Your task to perform on an android device: Open Yahoo.com Image 0: 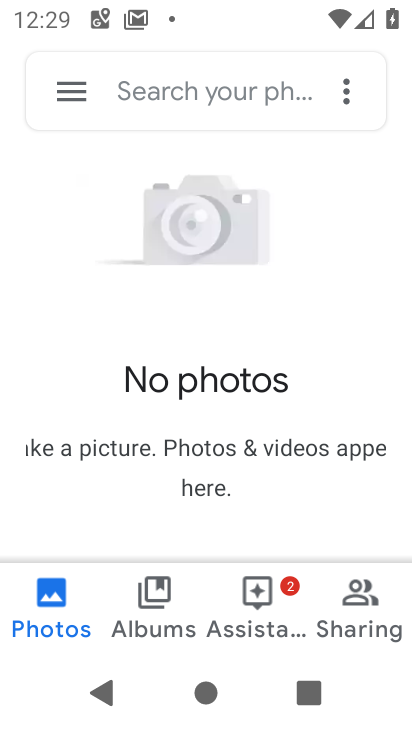
Step 0: press home button
Your task to perform on an android device: Open Yahoo.com Image 1: 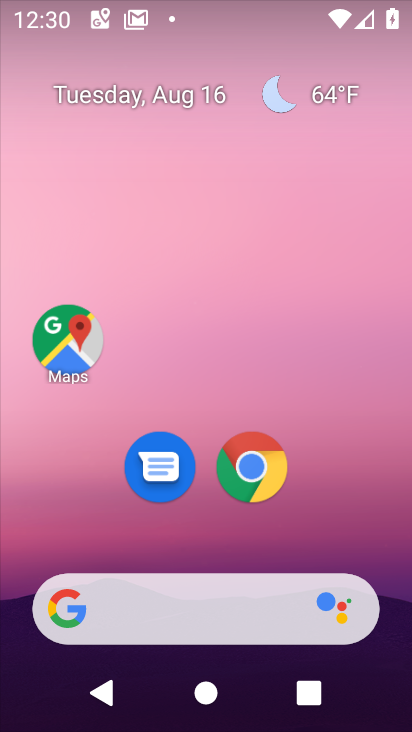
Step 1: drag from (374, 542) to (403, 421)
Your task to perform on an android device: Open Yahoo.com Image 2: 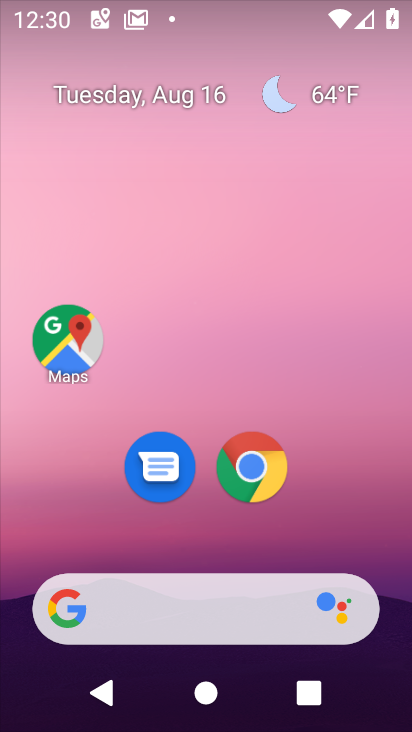
Step 2: drag from (378, 554) to (390, 117)
Your task to perform on an android device: Open Yahoo.com Image 3: 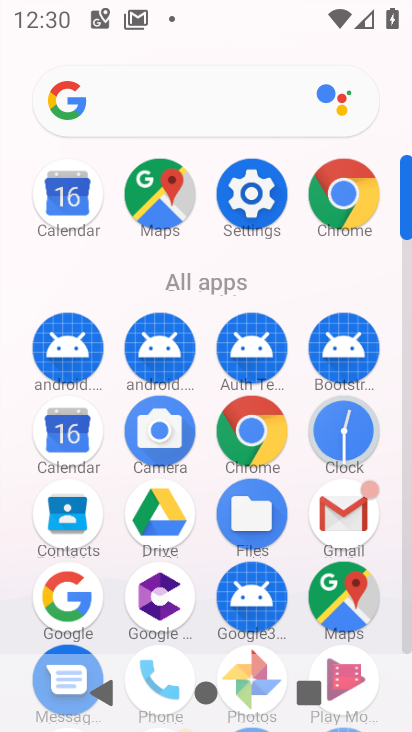
Step 3: click (261, 434)
Your task to perform on an android device: Open Yahoo.com Image 4: 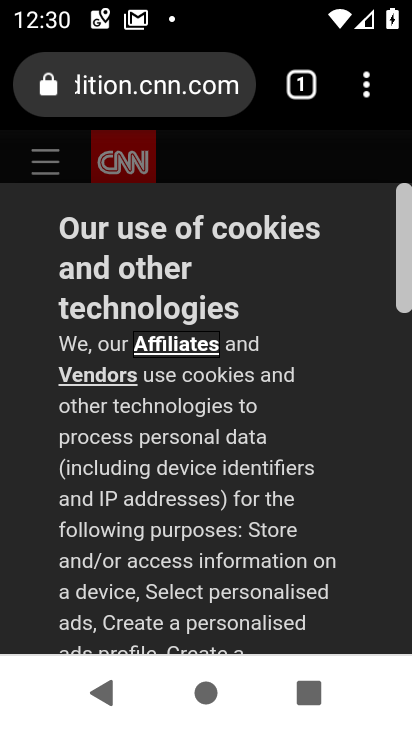
Step 4: click (172, 92)
Your task to perform on an android device: Open Yahoo.com Image 5: 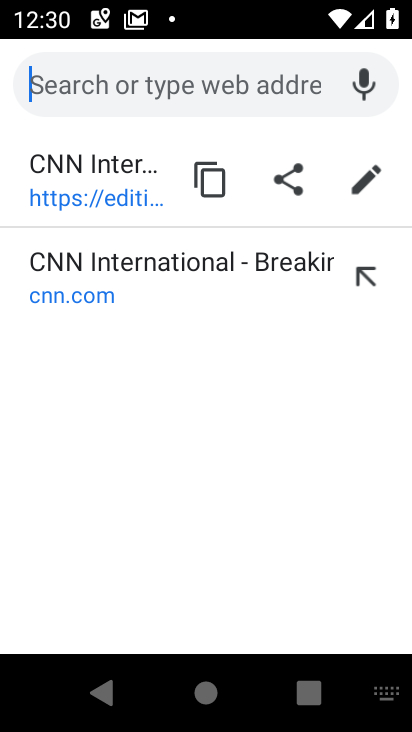
Step 5: type "yahoo/cpm"
Your task to perform on an android device: Open Yahoo.com Image 6: 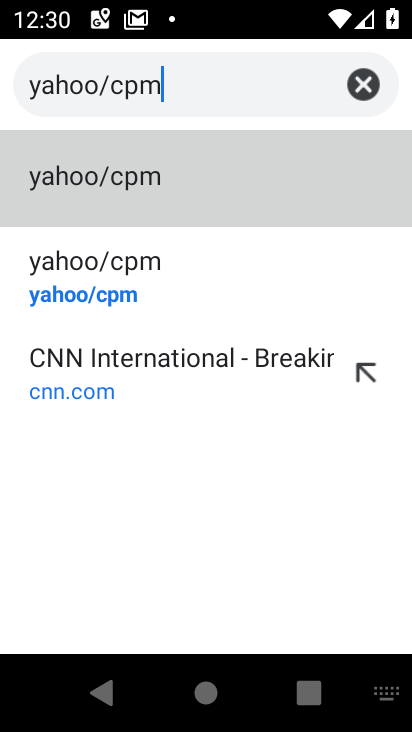
Step 6: press enter
Your task to perform on an android device: Open Yahoo.com Image 7: 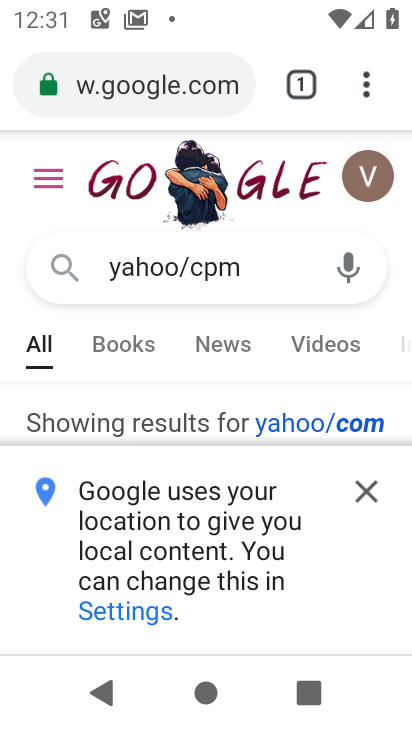
Step 7: task complete